Your task to perform on an android device: See recent photos Image 0: 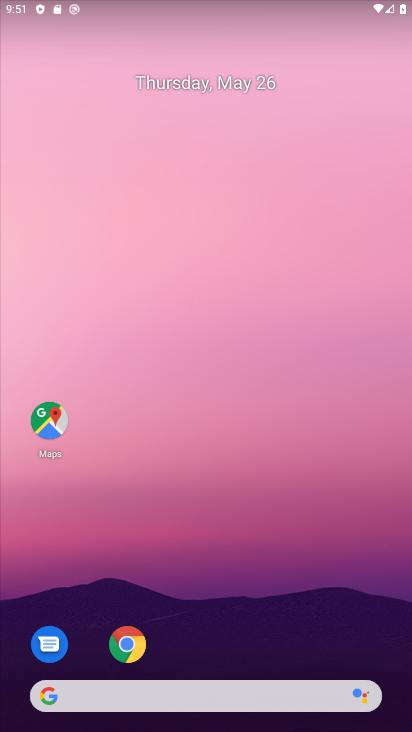
Step 0: drag from (340, 615) to (330, 197)
Your task to perform on an android device: See recent photos Image 1: 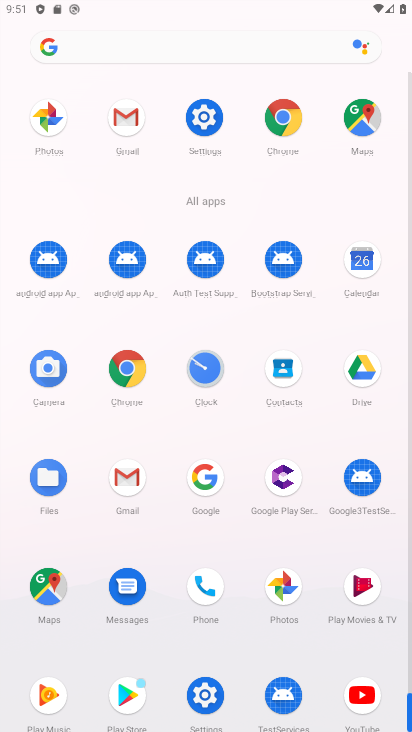
Step 1: click (288, 600)
Your task to perform on an android device: See recent photos Image 2: 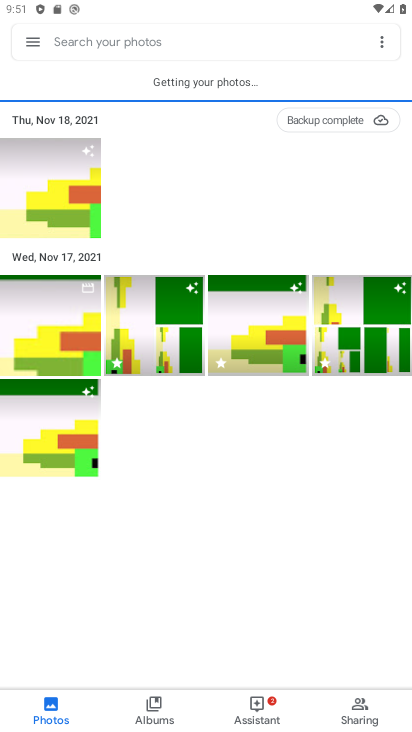
Step 2: click (56, 336)
Your task to perform on an android device: See recent photos Image 3: 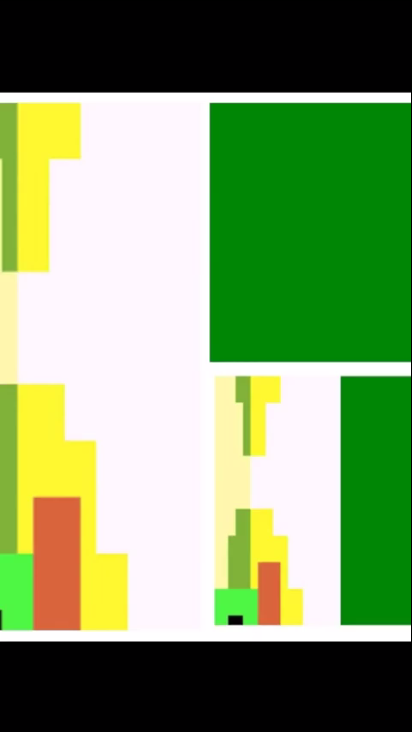
Step 3: task complete